Your task to perform on an android device: Open Reddit Image 0: 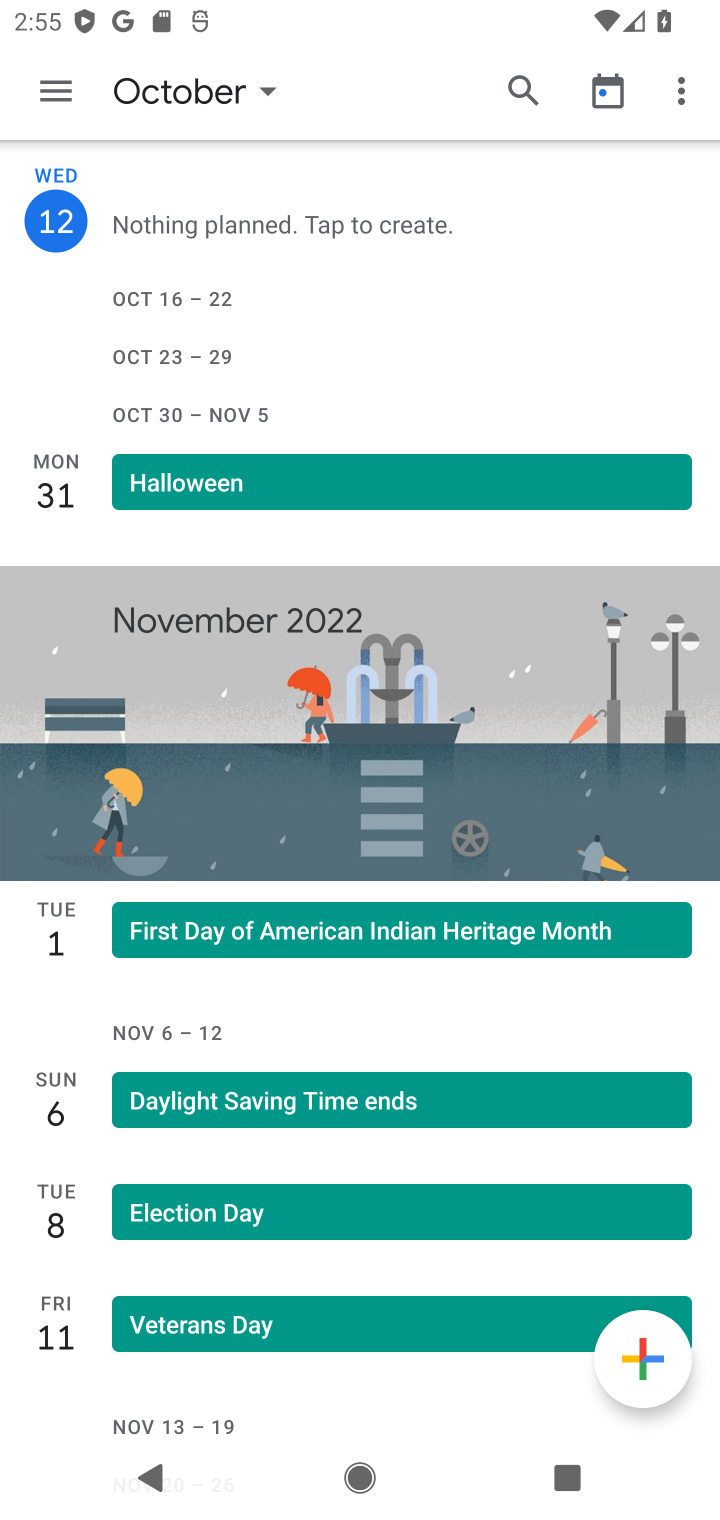
Step 0: press home button
Your task to perform on an android device: Open Reddit Image 1: 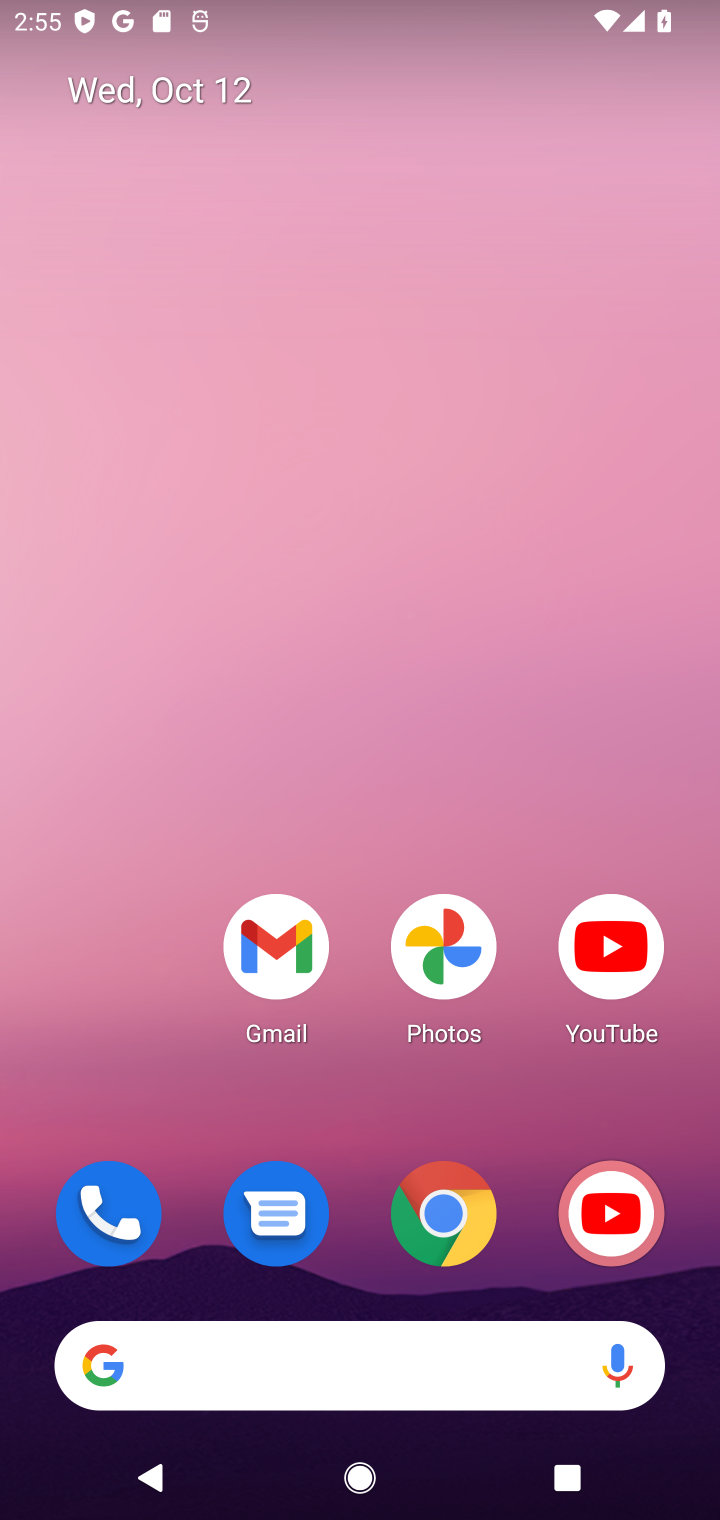
Step 1: click (275, 1340)
Your task to perform on an android device: Open Reddit Image 2: 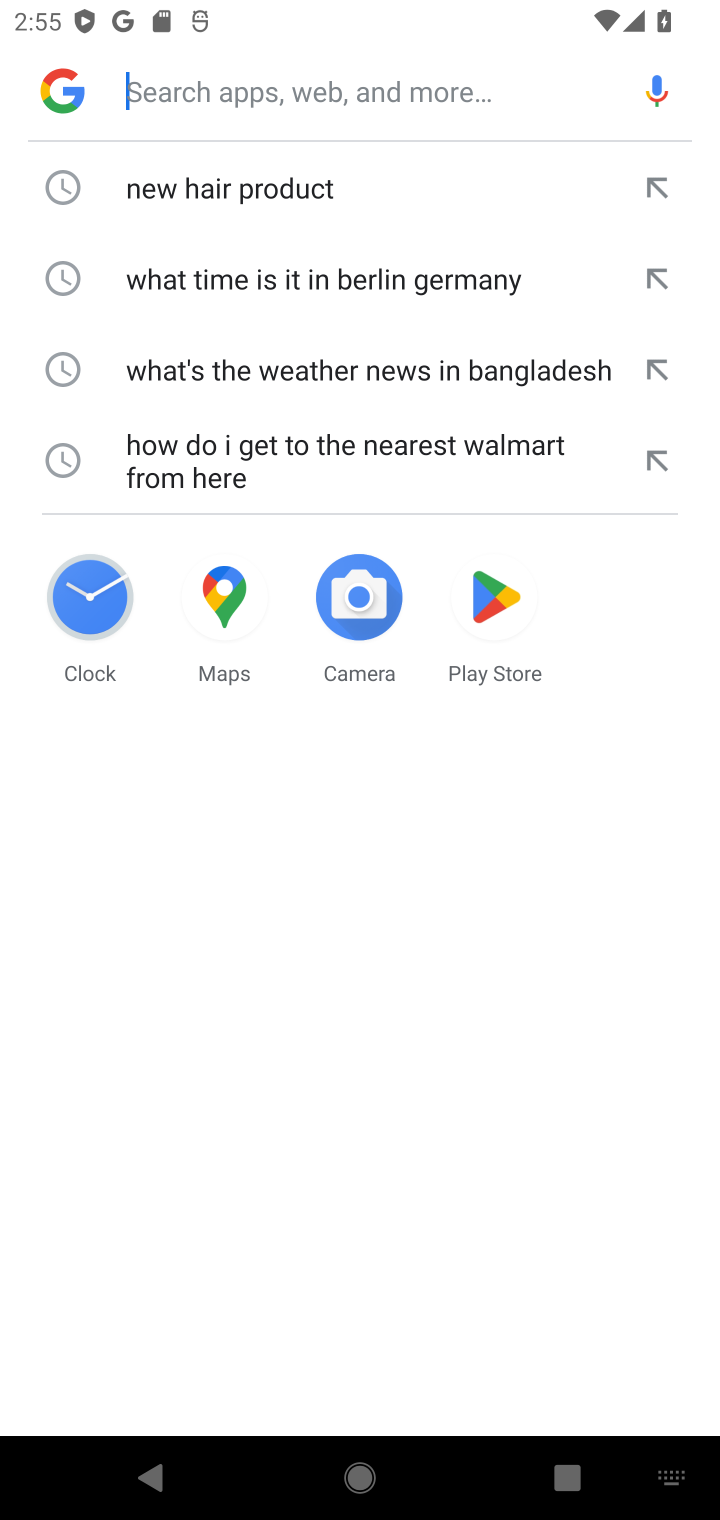
Step 2: click (293, 93)
Your task to perform on an android device: Open Reddit Image 3: 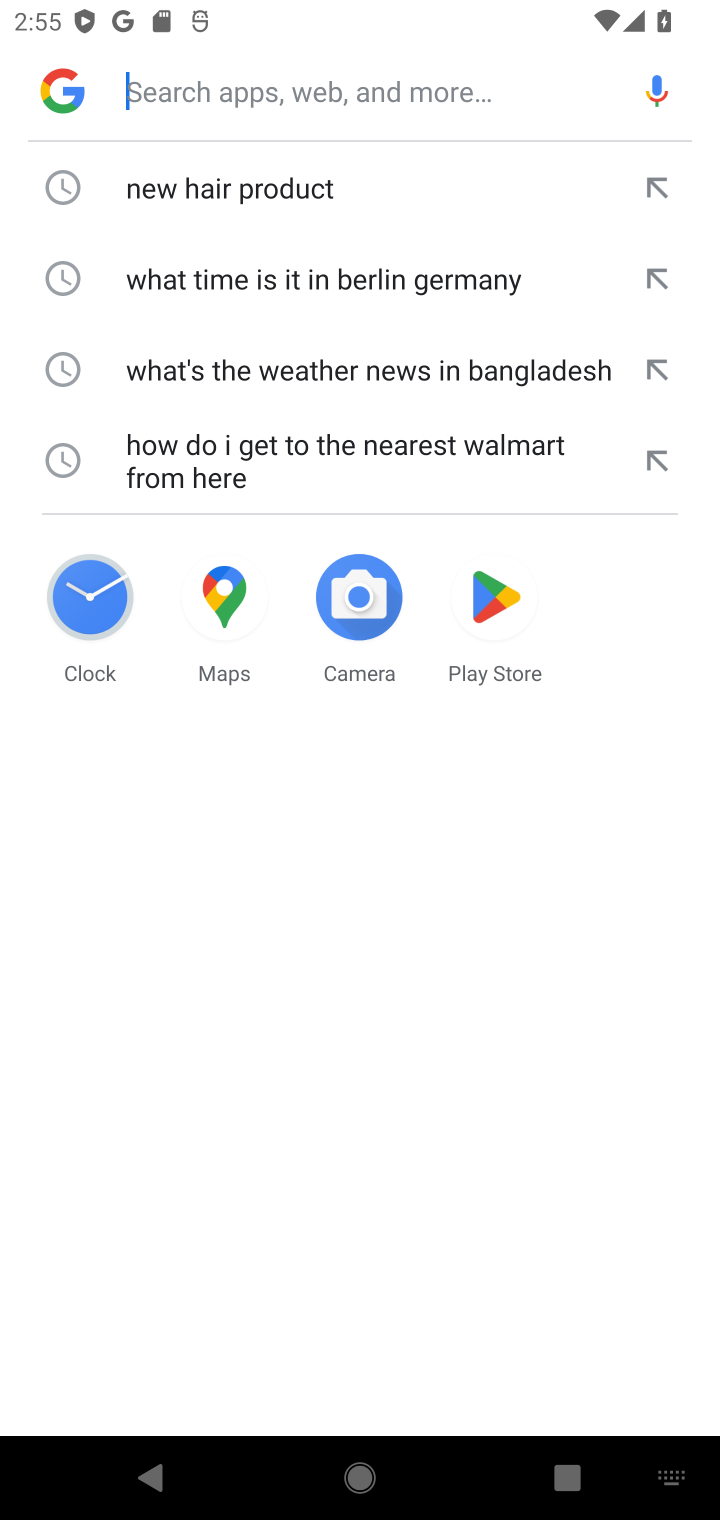
Step 3: type "reddit"
Your task to perform on an android device: Open Reddit Image 4: 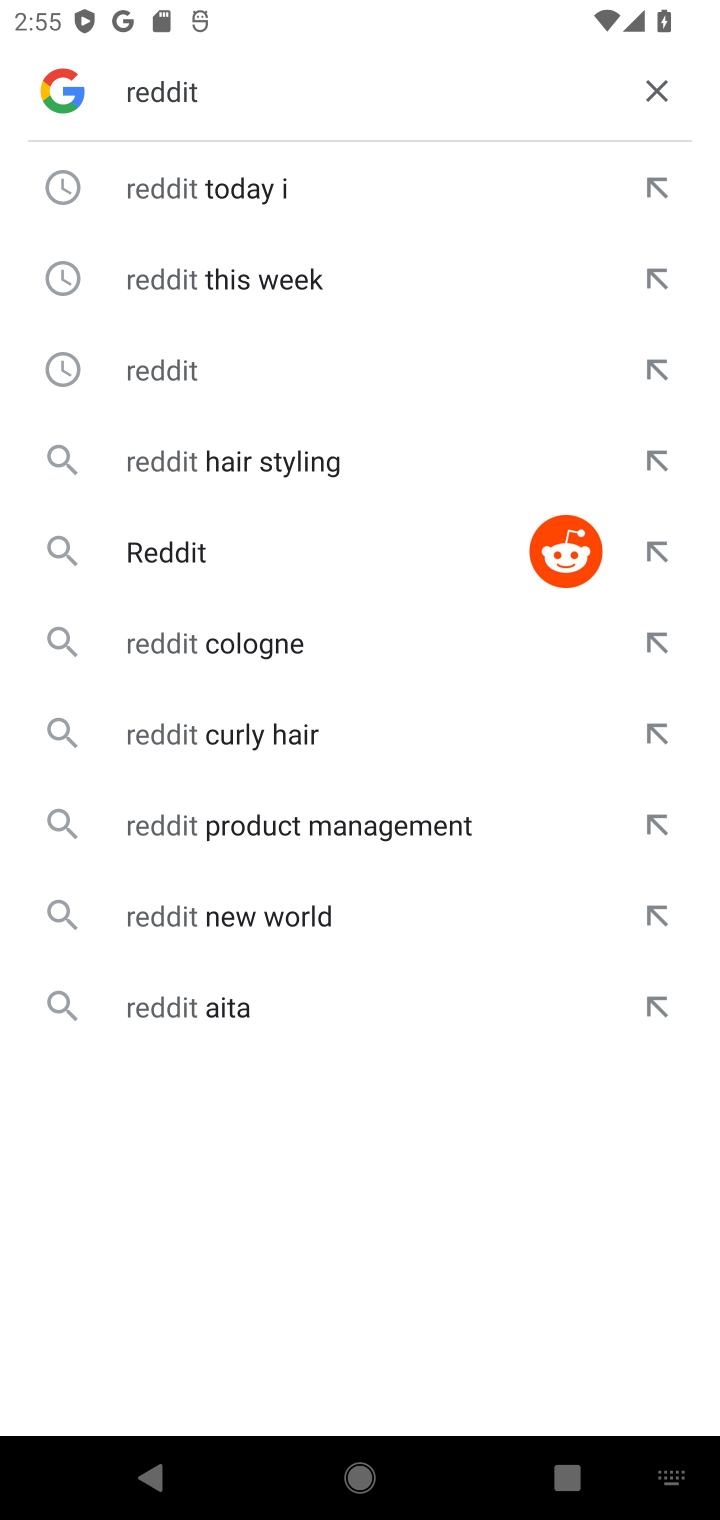
Step 4: click (168, 368)
Your task to perform on an android device: Open Reddit Image 5: 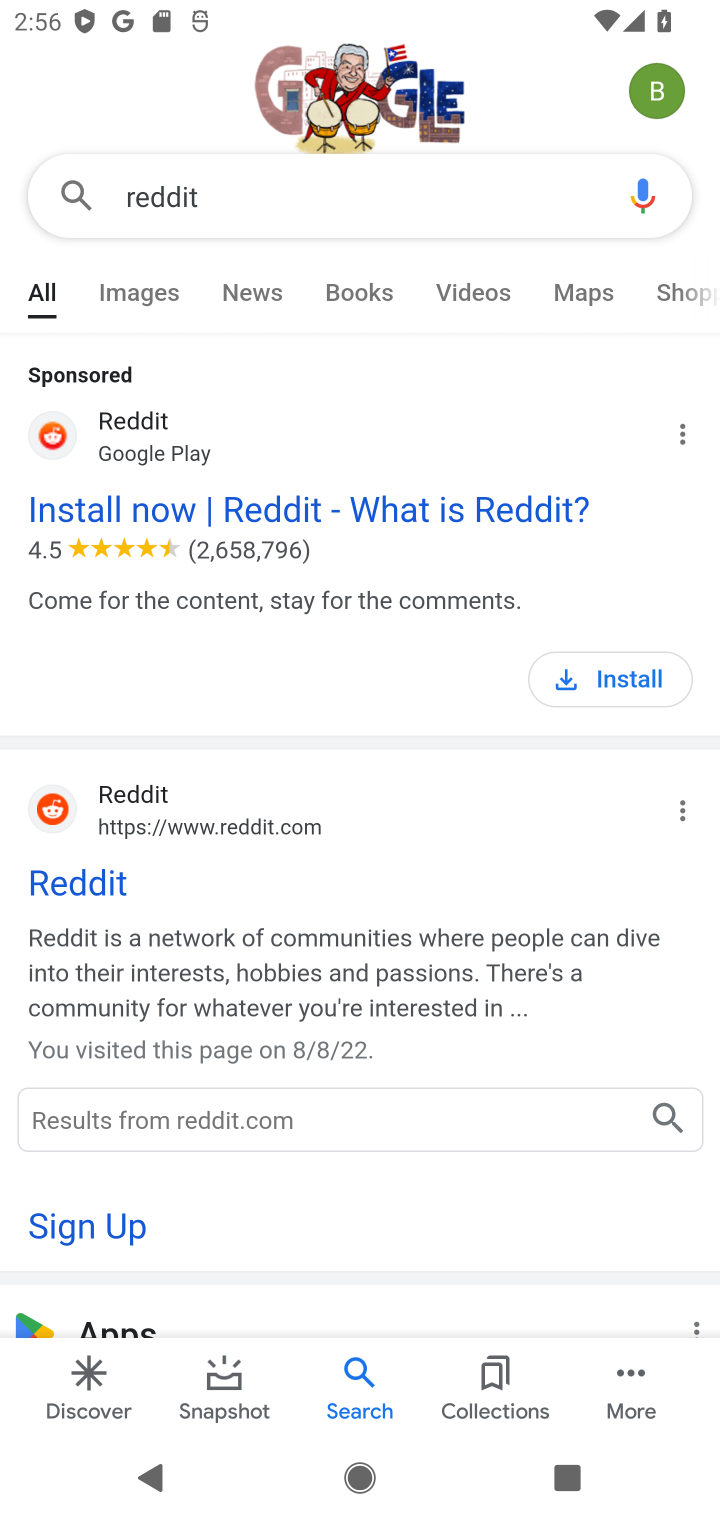
Step 5: click (116, 865)
Your task to perform on an android device: Open Reddit Image 6: 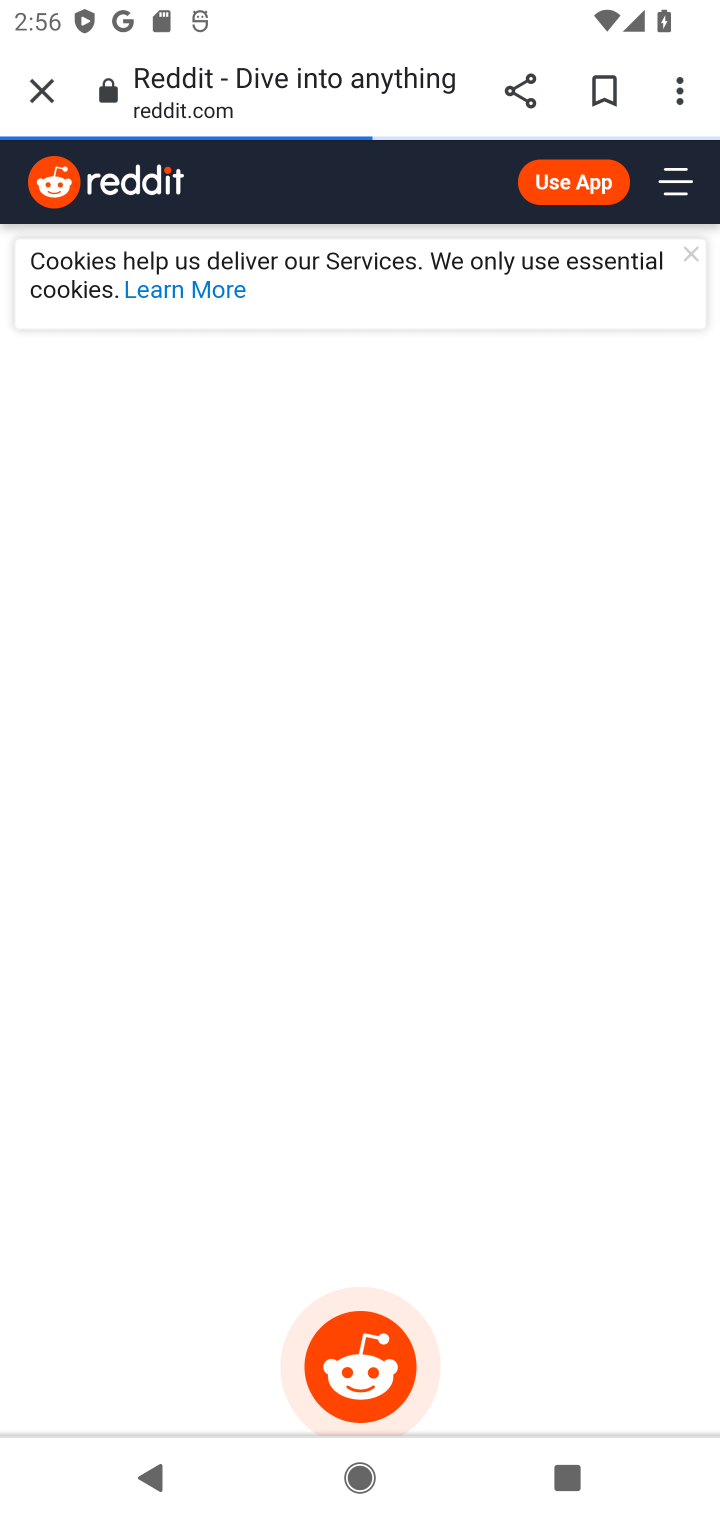
Step 6: task complete